Your task to perform on an android device: Go to Google maps Image 0: 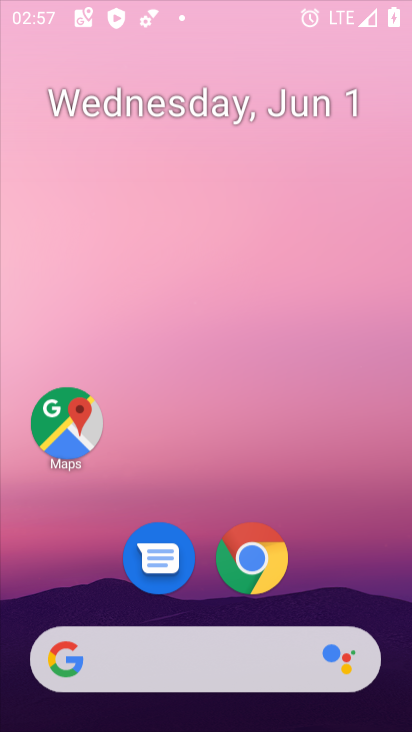
Step 0: press home button
Your task to perform on an android device: Go to Google maps Image 1: 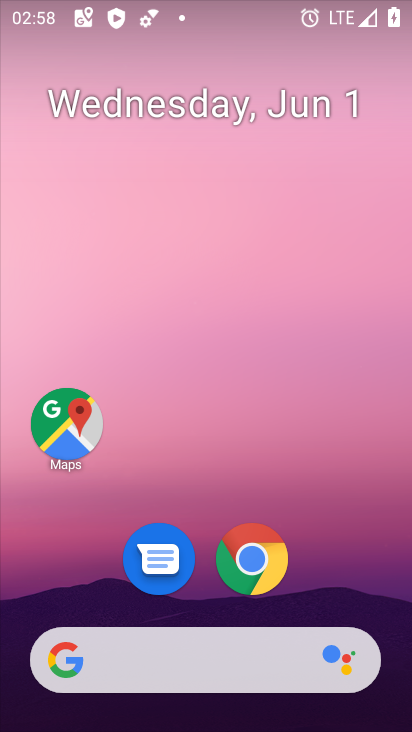
Step 1: click (61, 436)
Your task to perform on an android device: Go to Google maps Image 2: 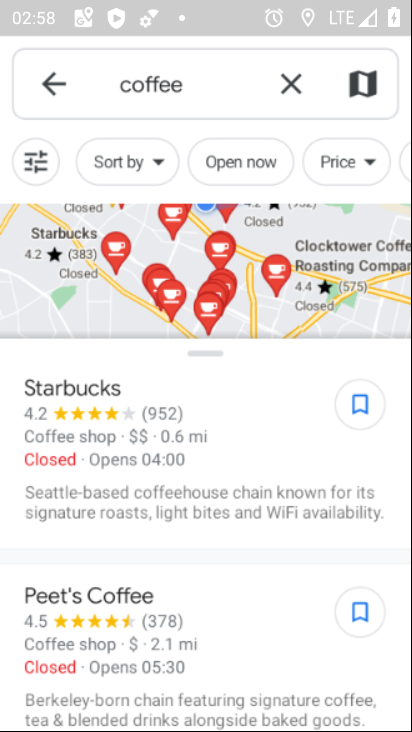
Step 2: click (295, 88)
Your task to perform on an android device: Go to Google maps Image 3: 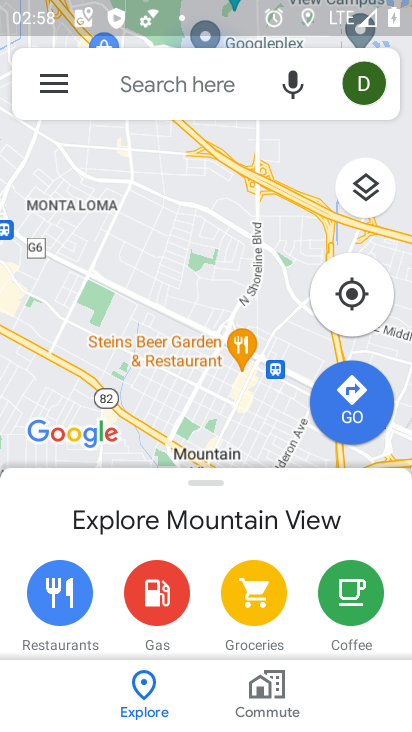
Step 3: task complete